Your task to perform on an android device: Open privacy settings Image 0: 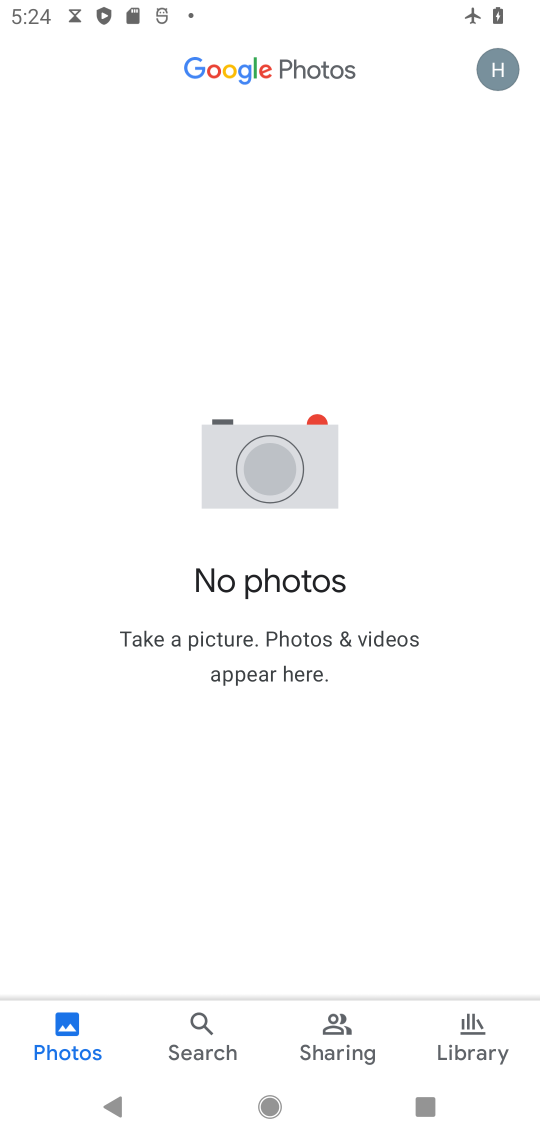
Step 0: press home button
Your task to perform on an android device: Open privacy settings Image 1: 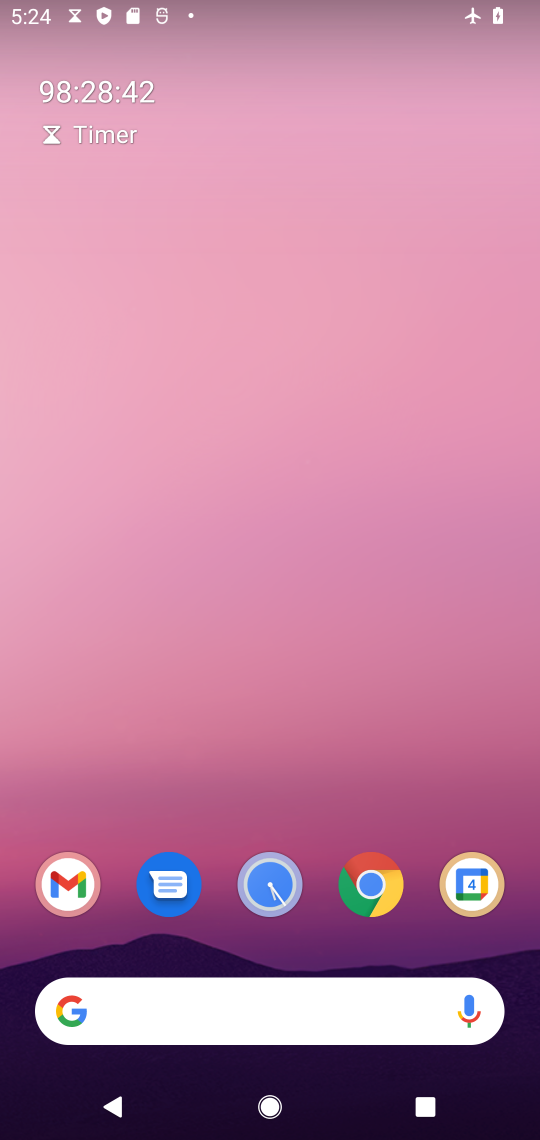
Step 1: drag from (113, 949) to (117, 177)
Your task to perform on an android device: Open privacy settings Image 2: 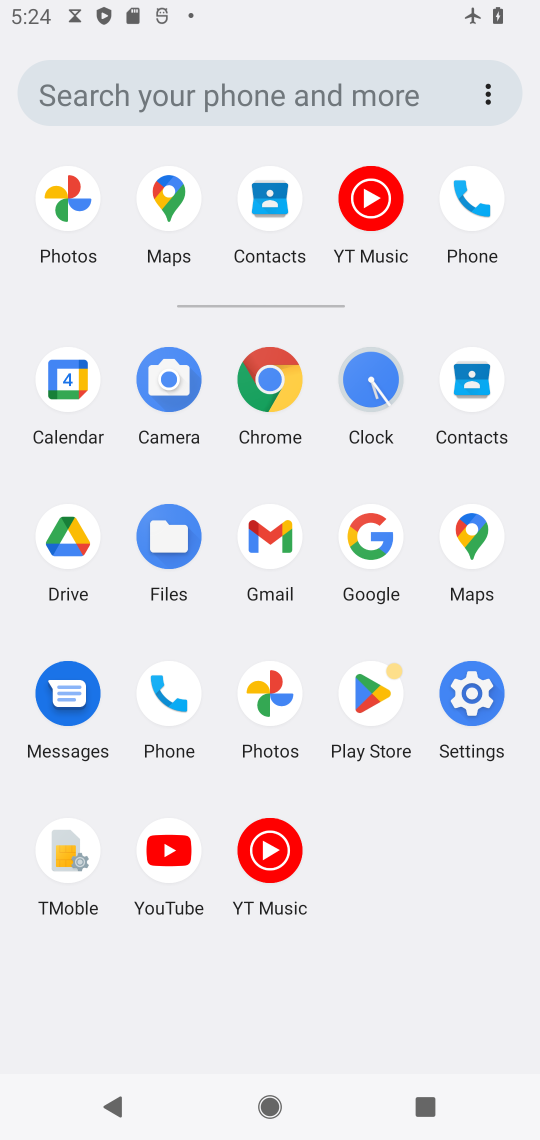
Step 2: click (480, 720)
Your task to perform on an android device: Open privacy settings Image 3: 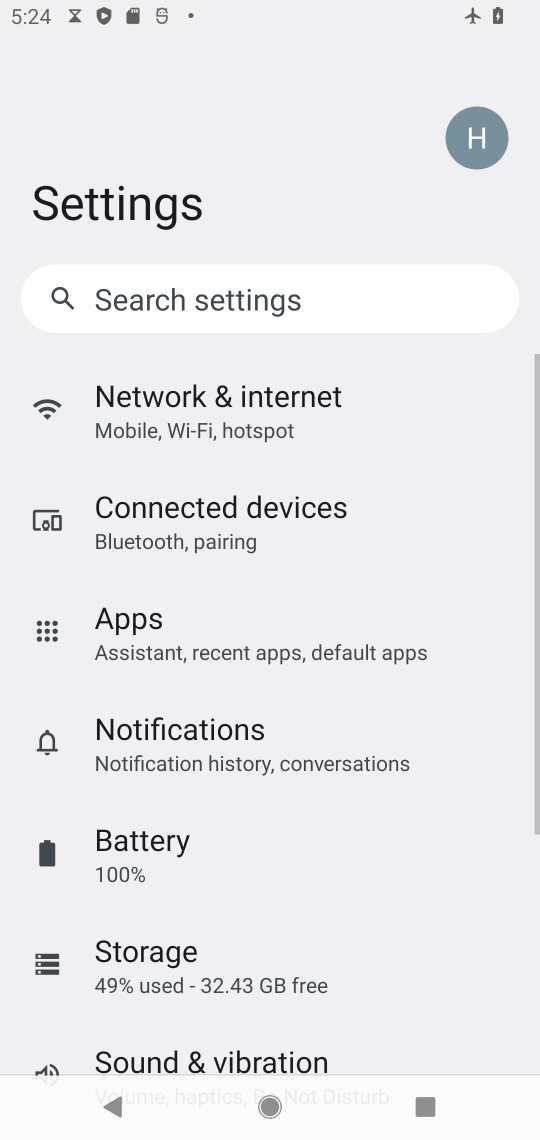
Step 3: drag from (271, 1051) to (297, 336)
Your task to perform on an android device: Open privacy settings Image 4: 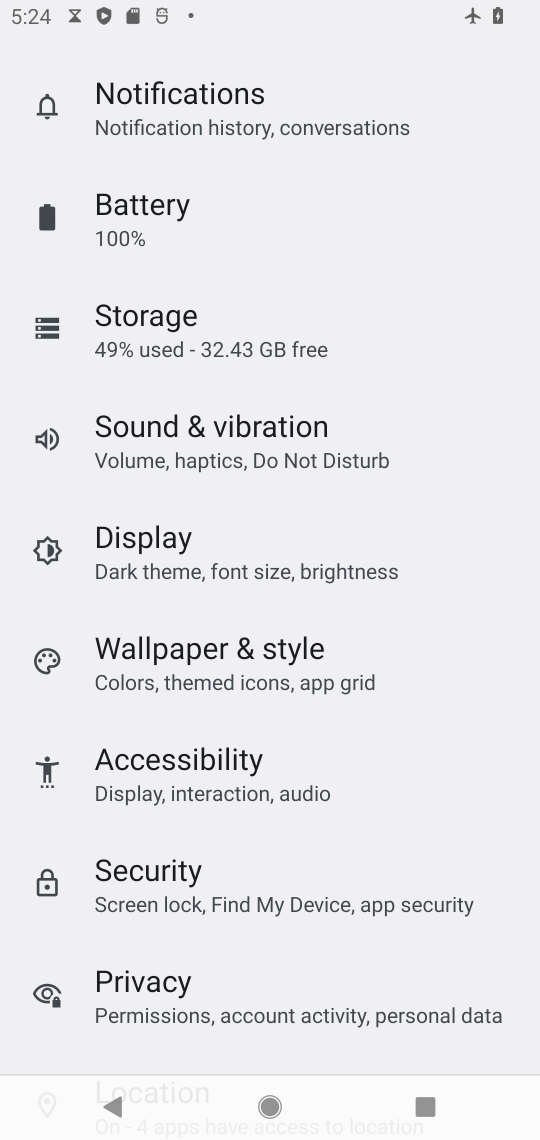
Step 4: click (219, 989)
Your task to perform on an android device: Open privacy settings Image 5: 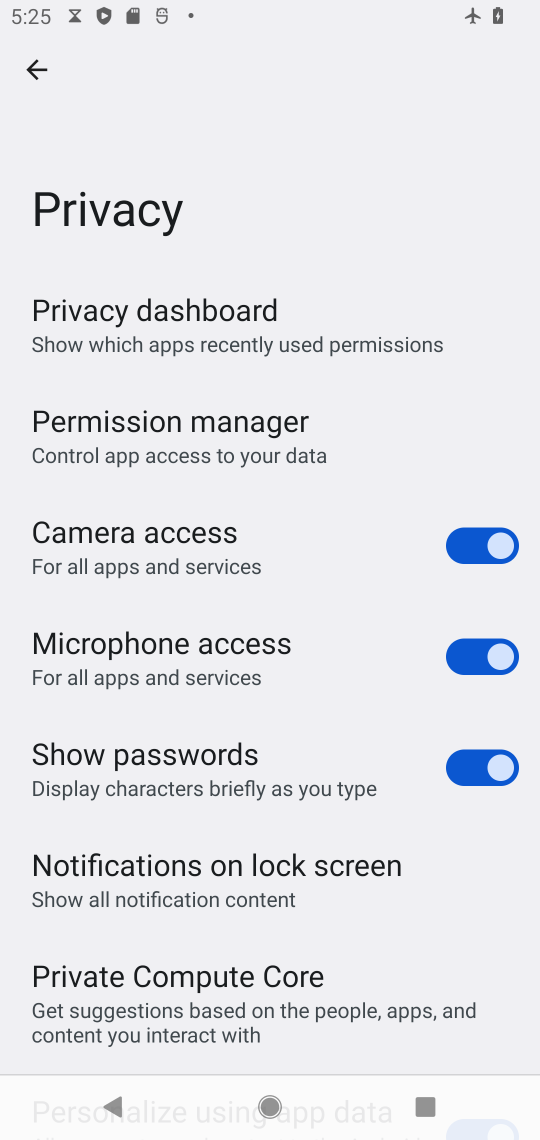
Step 5: task complete